Your task to perform on an android device: empty trash in google photos Image 0: 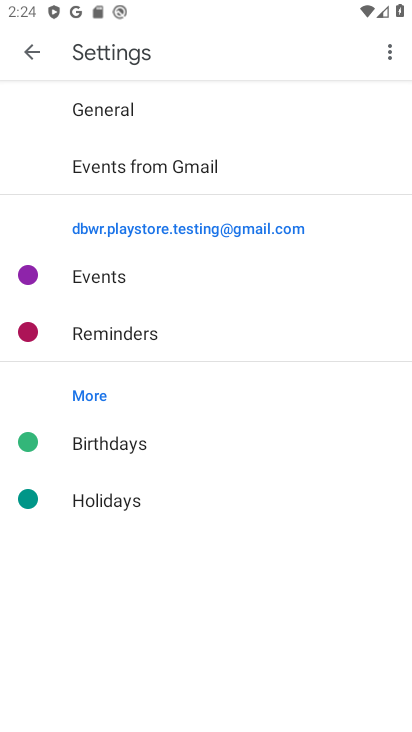
Step 0: press home button
Your task to perform on an android device: empty trash in google photos Image 1: 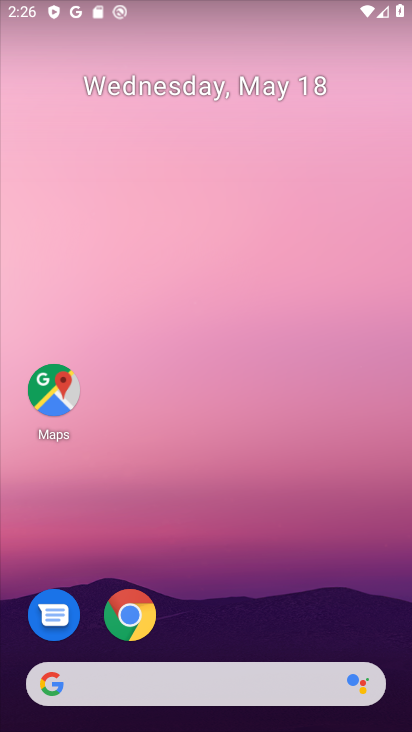
Step 1: drag from (189, 605) to (212, 190)
Your task to perform on an android device: empty trash in google photos Image 2: 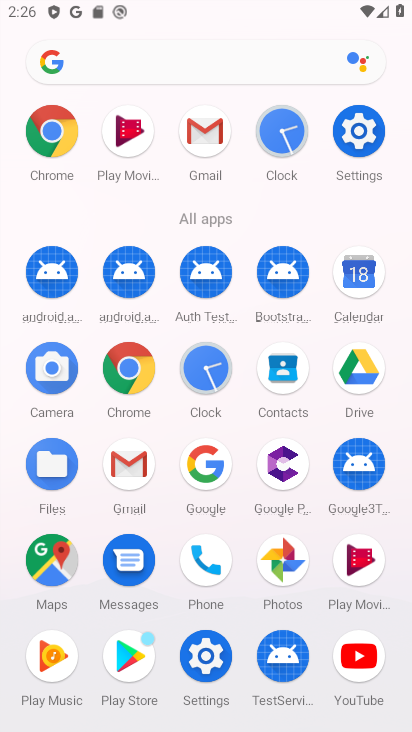
Step 2: click (282, 562)
Your task to perform on an android device: empty trash in google photos Image 3: 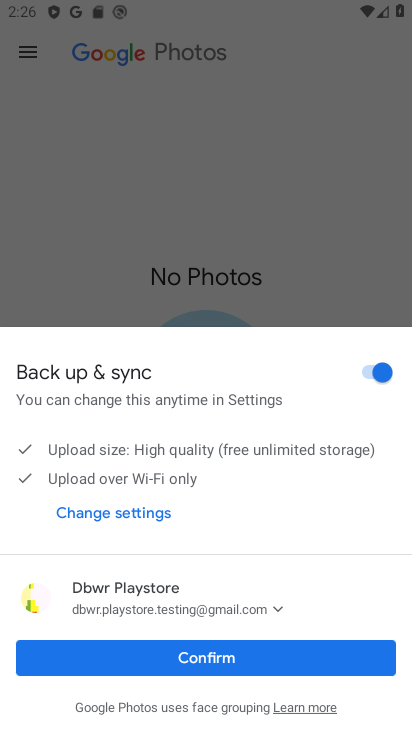
Step 3: click (197, 672)
Your task to perform on an android device: empty trash in google photos Image 4: 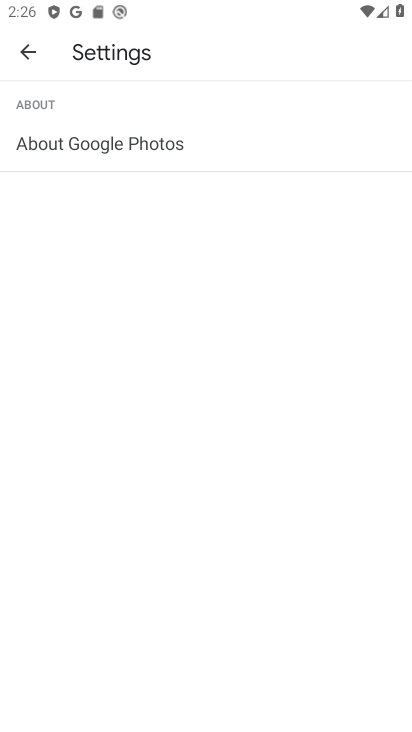
Step 4: click (121, 144)
Your task to perform on an android device: empty trash in google photos Image 5: 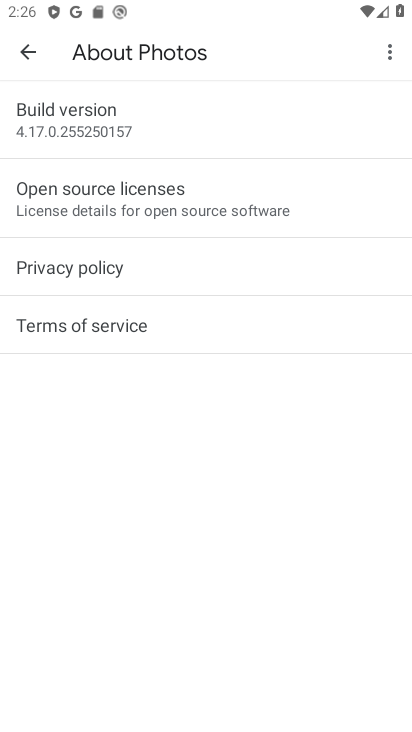
Step 5: click (10, 68)
Your task to perform on an android device: empty trash in google photos Image 6: 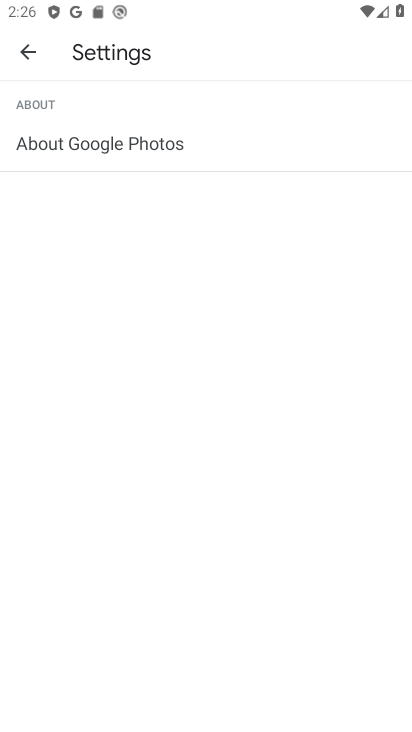
Step 6: click (20, 56)
Your task to perform on an android device: empty trash in google photos Image 7: 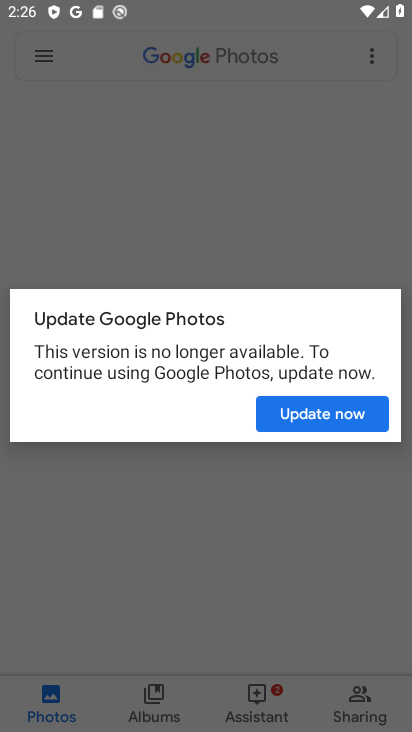
Step 7: click (331, 420)
Your task to perform on an android device: empty trash in google photos Image 8: 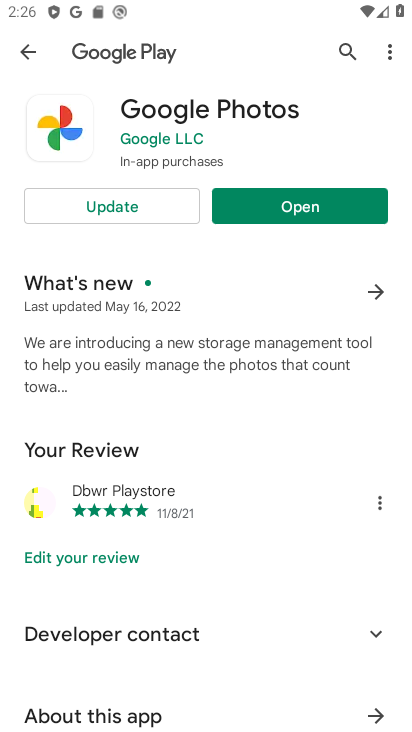
Step 8: click (205, 206)
Your task to perform on an android device: empty trash in google photos Image 9: 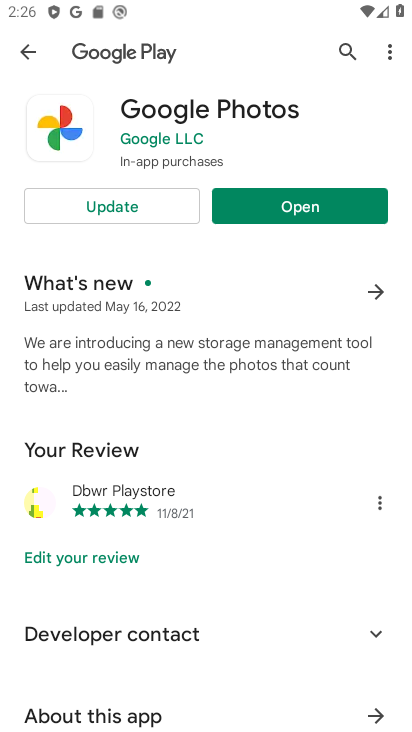
Step 9: click (161, 213)
Your task to perform on an android device: empty trash in google photos Image 10: 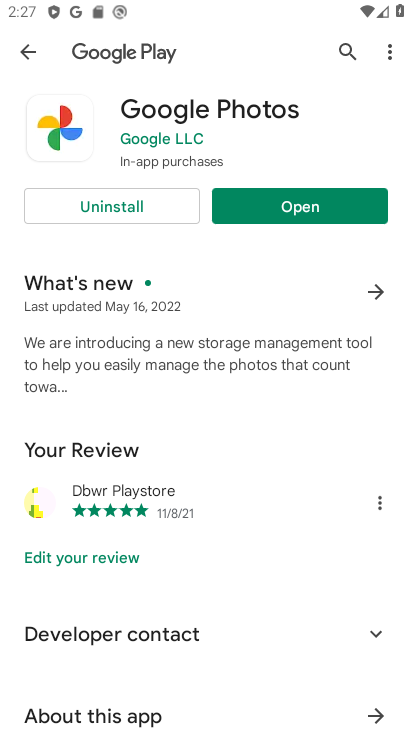
Step 10: click (336, 216)
Your task to perform on an android device: empty trash in google photos Image 11: 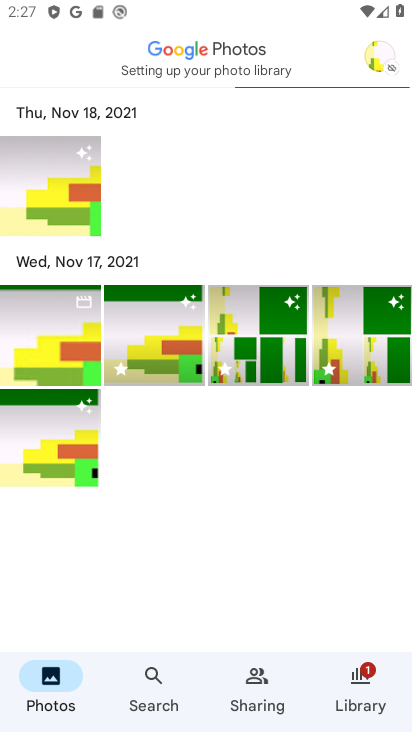
Step 11: click (366, 690)
Your task to perform on an android device: empty trash in google photos Image 12: 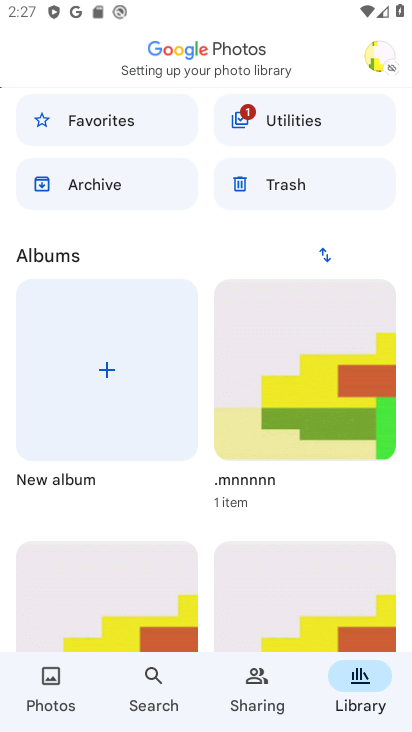
Step 12: click (284, 190)
Your task to perform on an android device: empty trash in google photos Image 13: 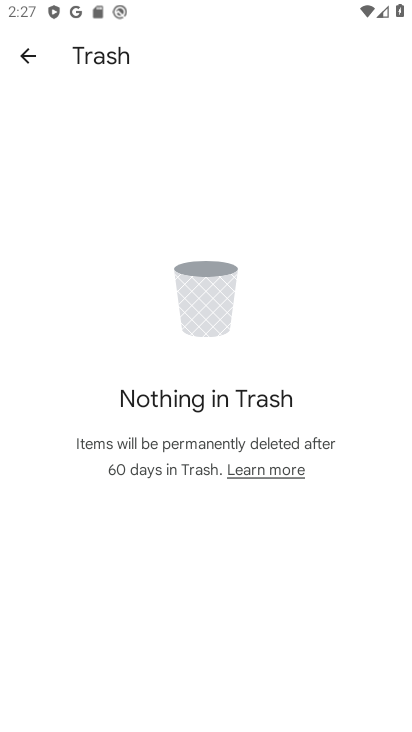
Step 13: task complete